Your task to perform on an android device: turn off priority inbox in the gmail app Image 0: 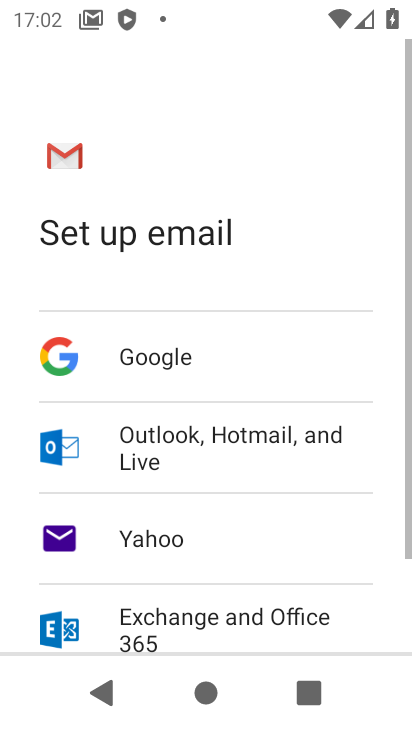
Step 0: press home button
Your task to perform on an android device: turn off priority inbox in the gmail app Image 1: 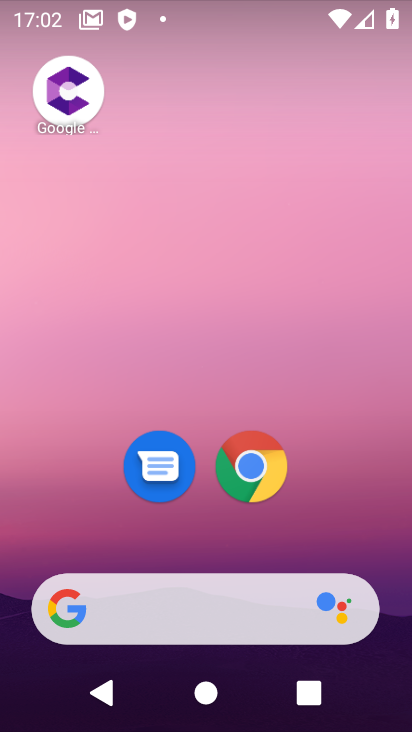
Step 1: drag from (333, 505) to (249, 59)
Your task to perform on an android device: turn off priority inbox in the gmail app Image 2: 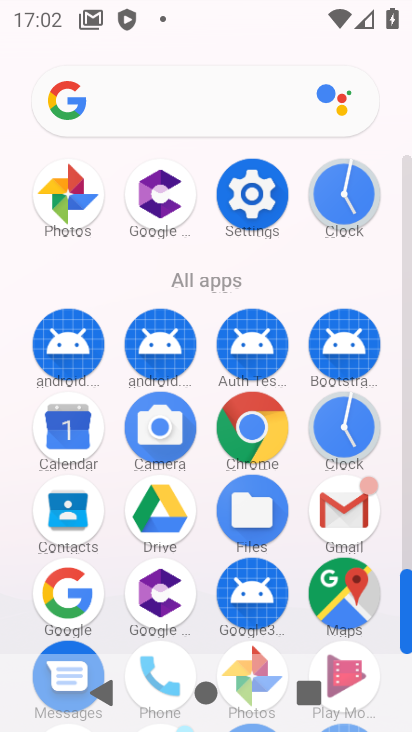
Step 2: click (345, 516)
Your task to perform on an android device: turn off priority inbox in the gmail app Image 3: 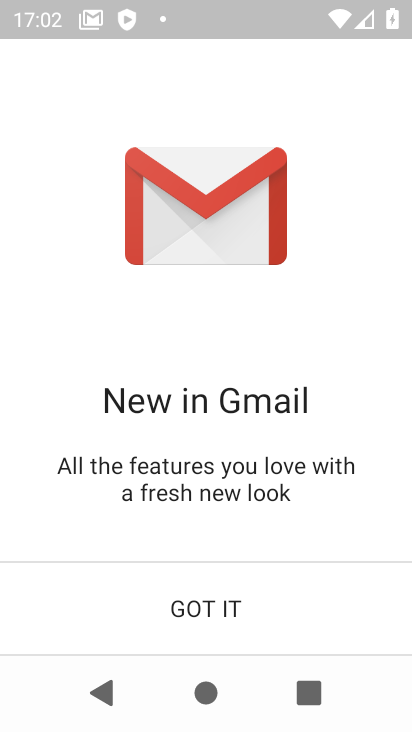
Step 3: click (199, 603)
Your task to perform on an android device: turn off priority inbox in the gmail app Image 4: 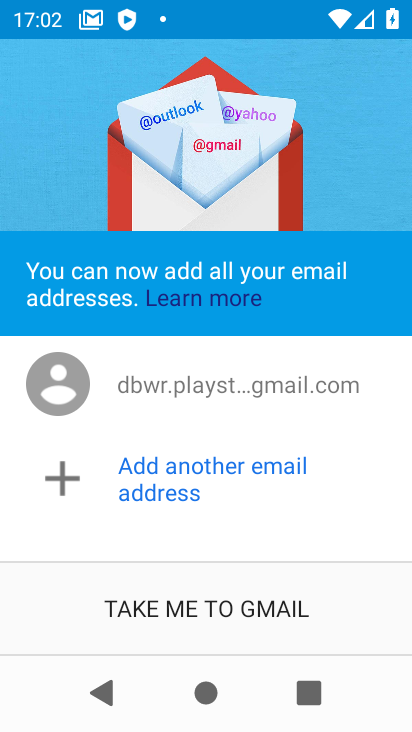
Step 4: click (185, 603)
Your task to perform on an android device: turn off priority inbox in the gmail app Image 5: 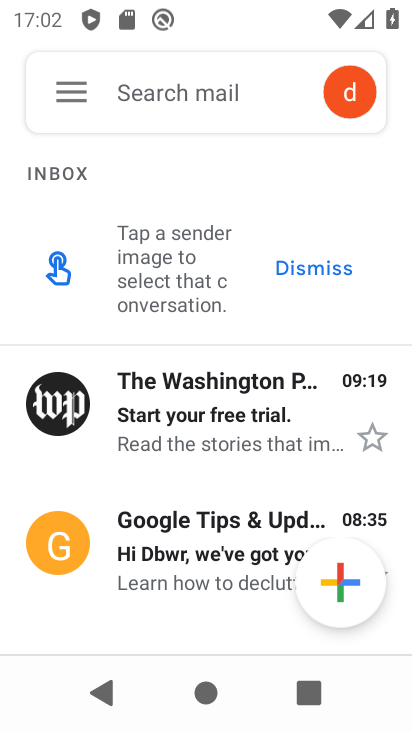
Step 5: click (61, 87)
Your task to perform on an android device: turn off priority inbox in the gmail app Image 6: 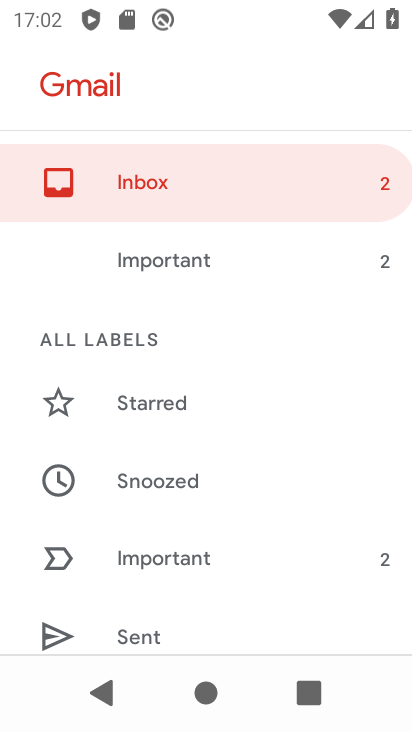
Step 6: drag from (247, 600) to (236, 223)
Your task to perform on an android device: turn off priority inbox in the gmail app Image 7: 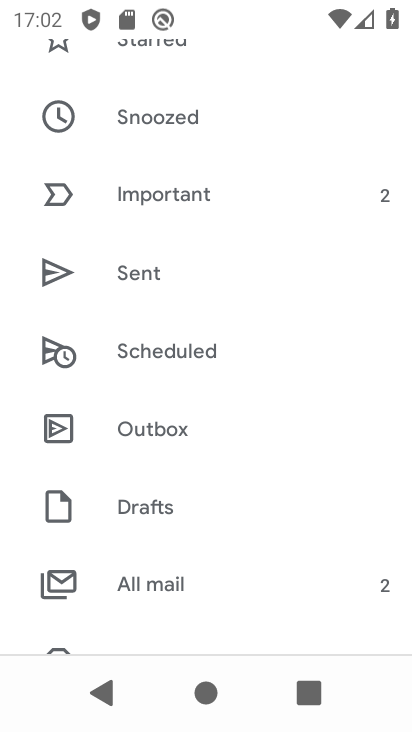
Step 7: drag from (238, 497) to (233, 97)
Your task to perform on an android device: turn off priority inbox in the gmail app Image 8: 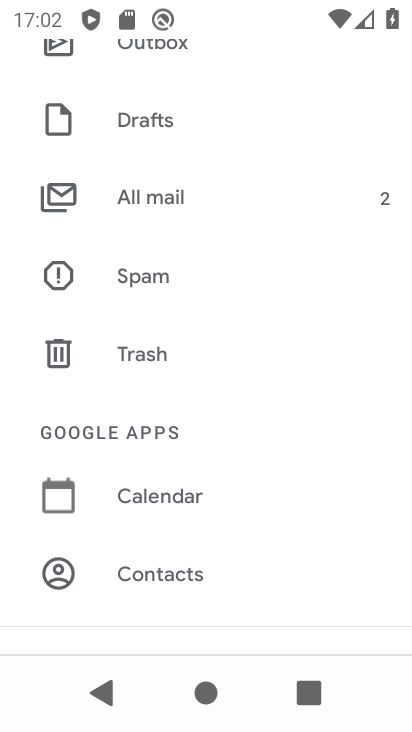
Step 8: drag from (230, 449) to (212, 101)
Your task to perform on an android device: turn off priority inbox in the gmail app Image 9: 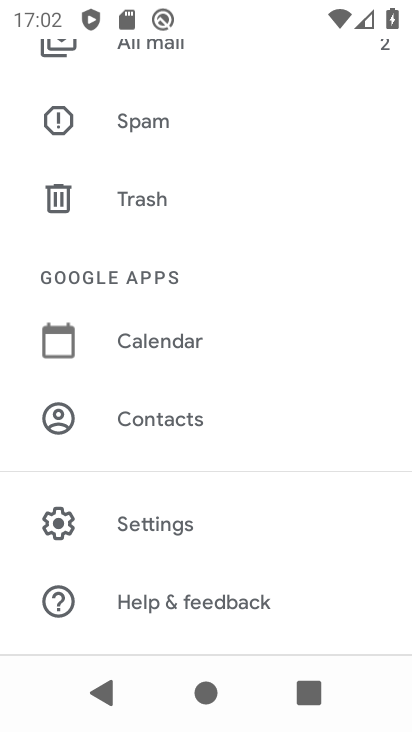
Step 9: click (147, 518)
Your task to perform on an android device: turn off priority inbox in the gmail app Image 10: 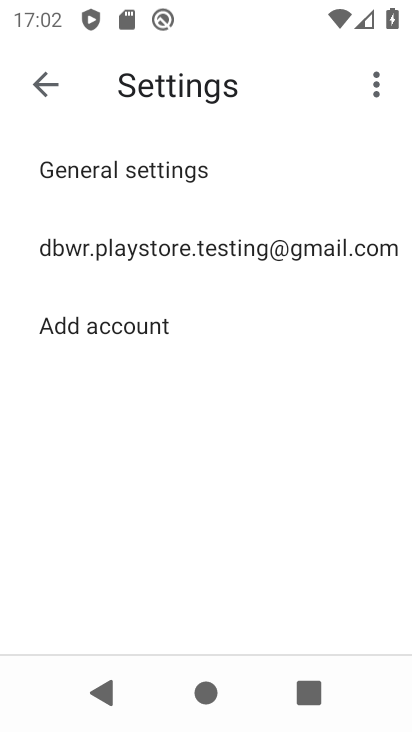
Step 10: click (131, 243)
Your task to perform on an android device: turn off priority inbox in the gmail app Image 11: 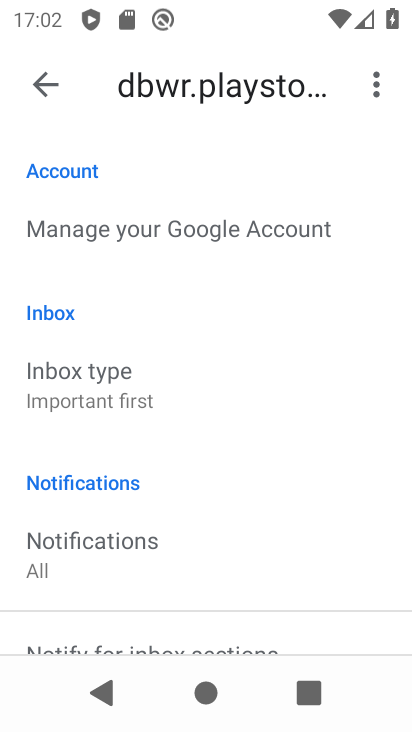
Step 11: click (94, 372)
Your task to perform on an android device: turn off priority inbox in the gmail app Image 12: 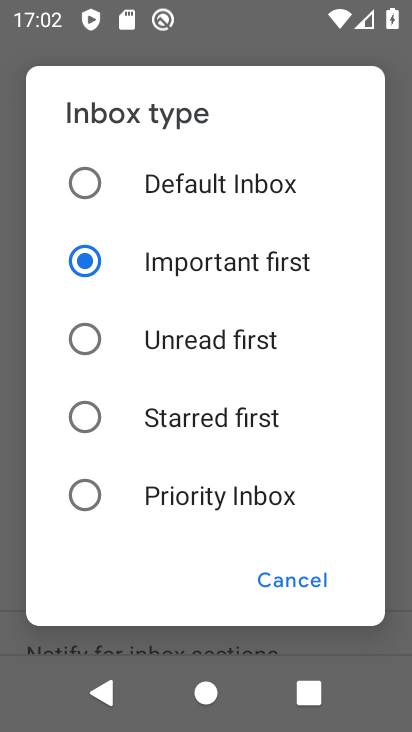
Step 12: task complete